Your task to perform on an android device: install app "Google Calendar" Image 0: 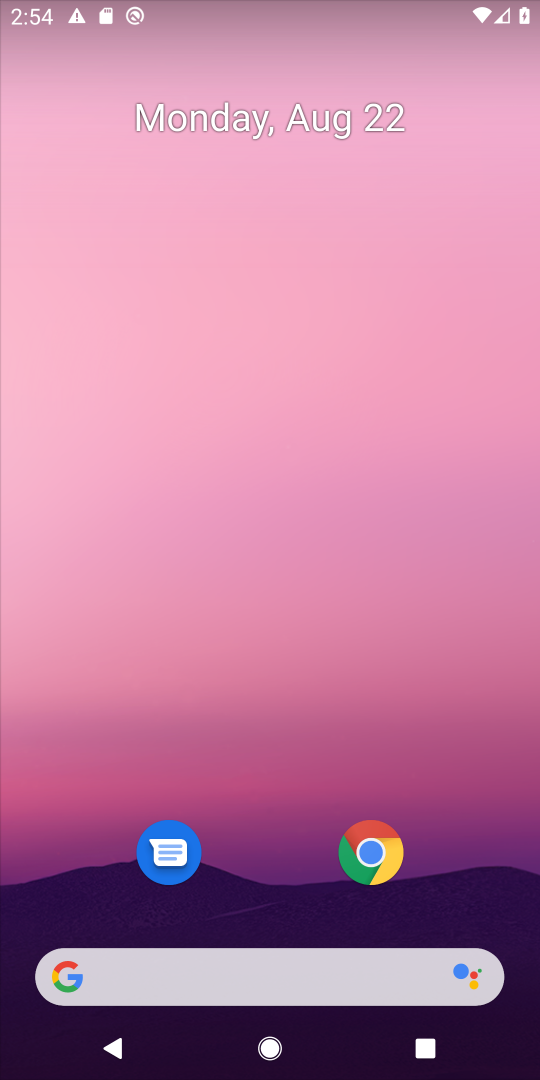
Step 0: drag from (282, 934) to (283, 49)
Your task to perform on an android device: install app "Google Calendar" Image 1: 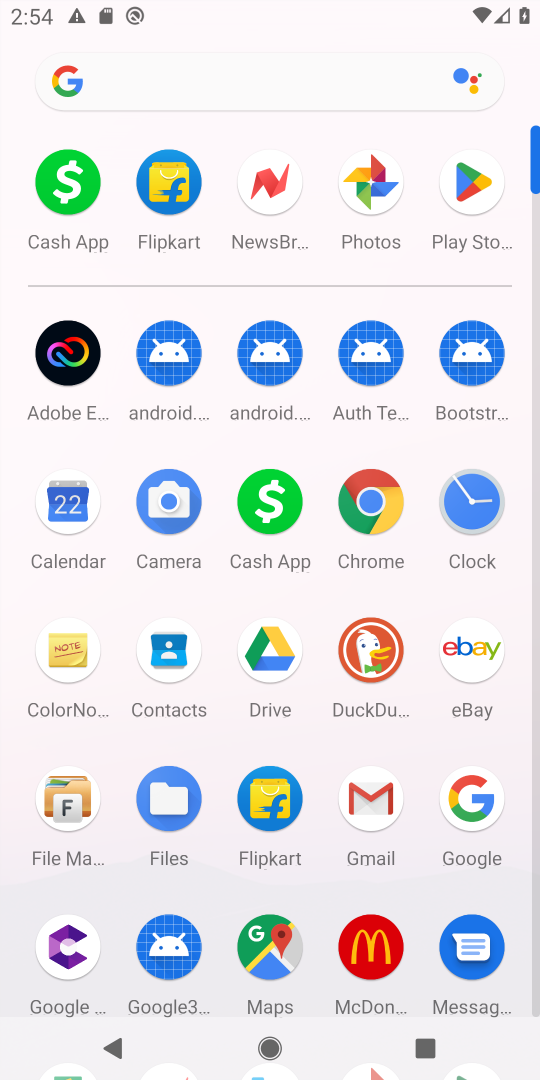
Step 1: click (471, 177)
Your task to perform on an android device: install app "Google Calendar" Image 2: 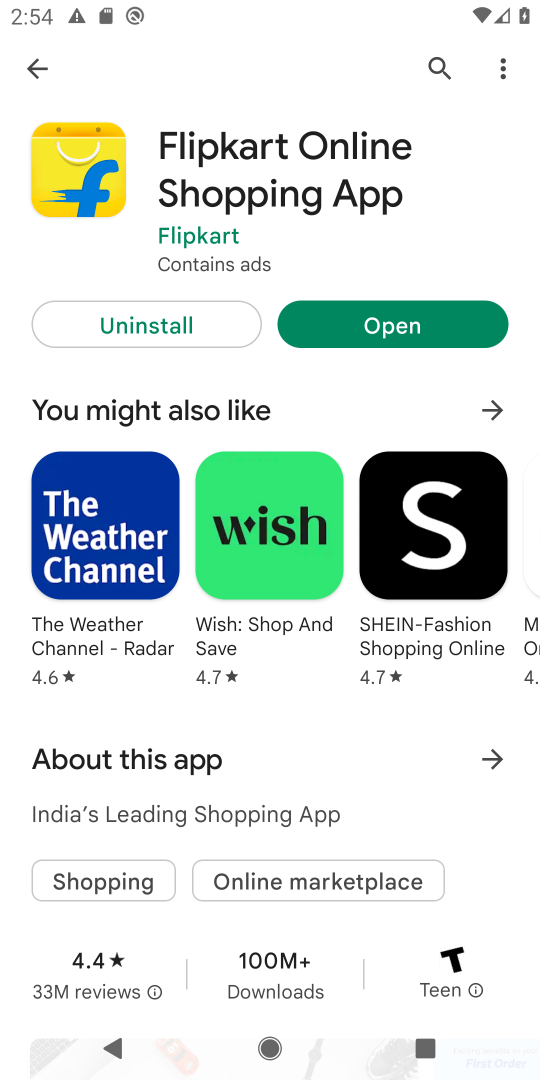
Step 2: click (438, 58)
Your task to perform on an android device: install app "Google Calendar" Image 3: 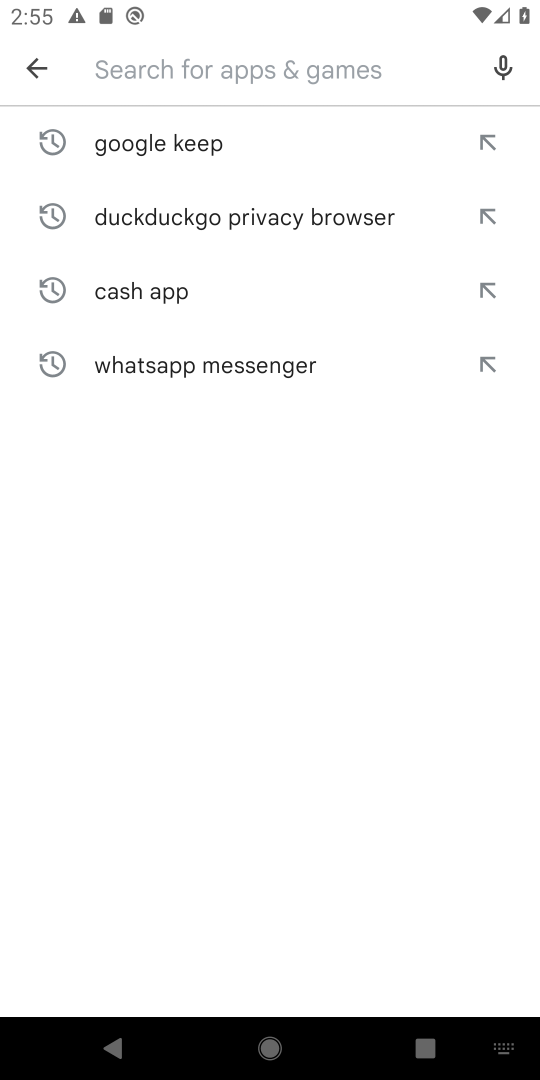
Step 3: type "Google Calendar"
Your task to perform on an android device: install app "Google Calendar" Image 4: 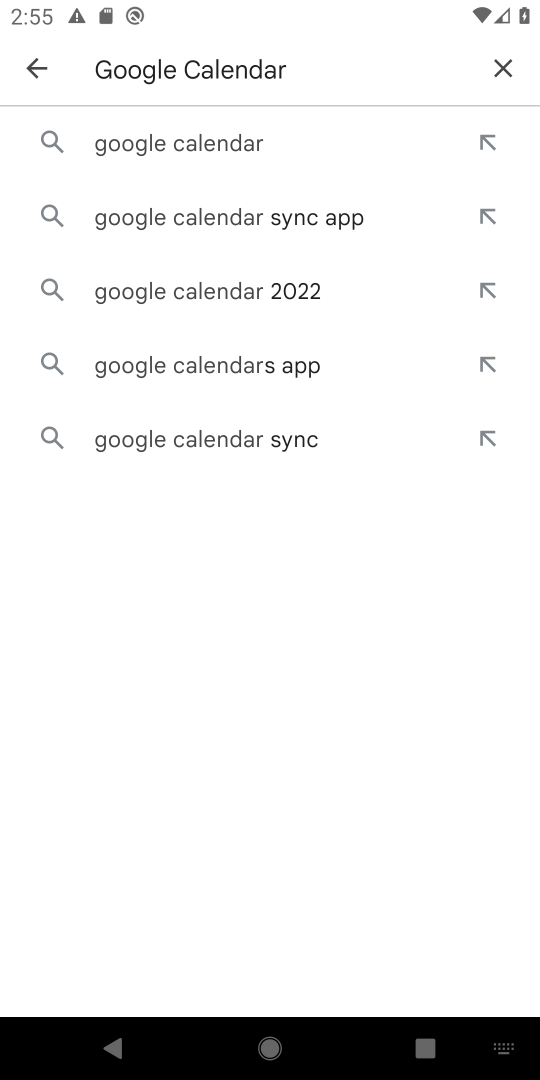
Step 4: click (230, 136)
Your task to perform on an android device: install app "Google Calendar" Image 5: 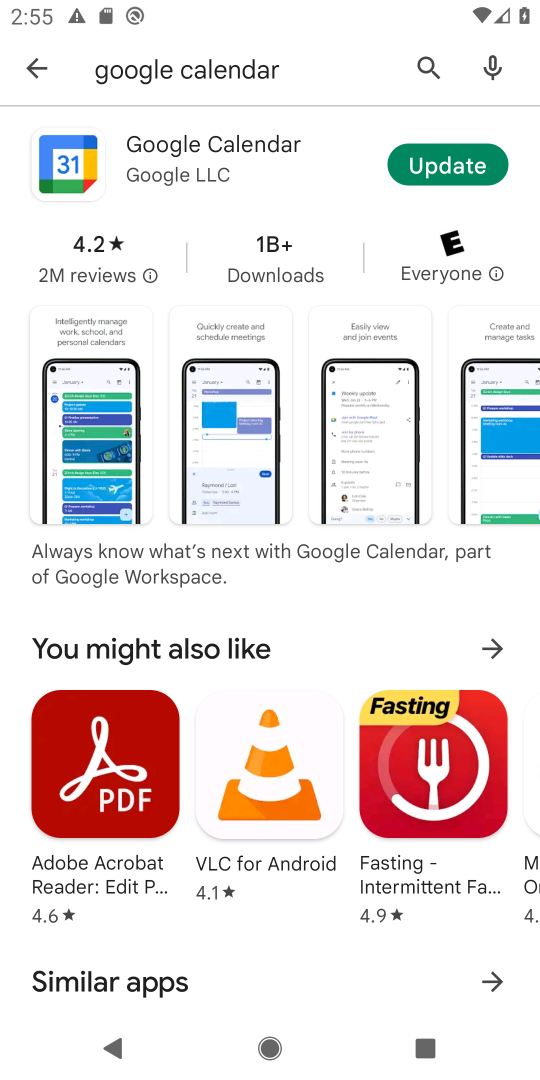
Step 5: click (223, 146)
Your task to perform on an android device: install app "Google Calendar" Image 6: 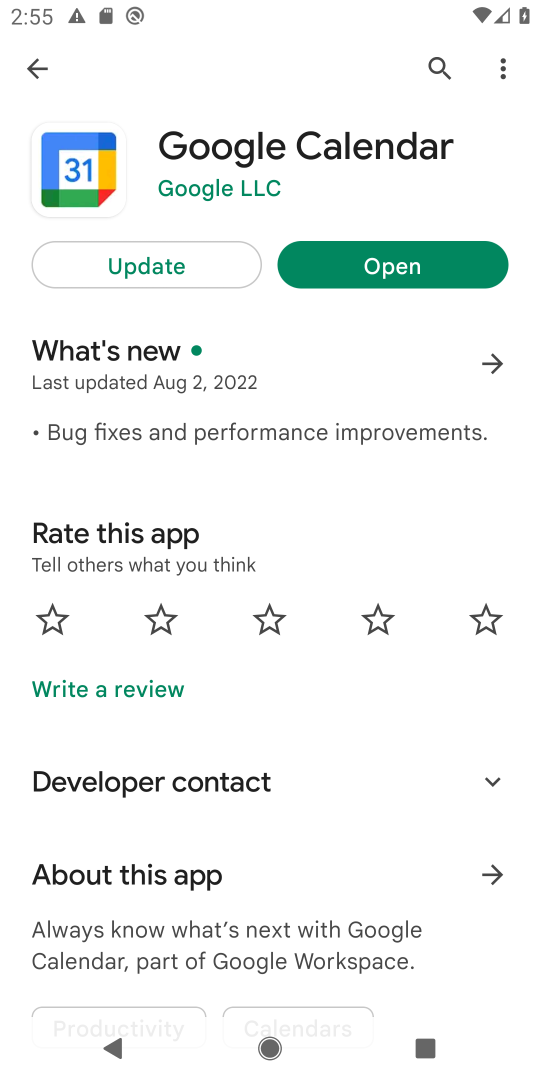
Step 6: task complete